Your task to perform on an android device: Search for Mexican restaurants on Maps Image 0: 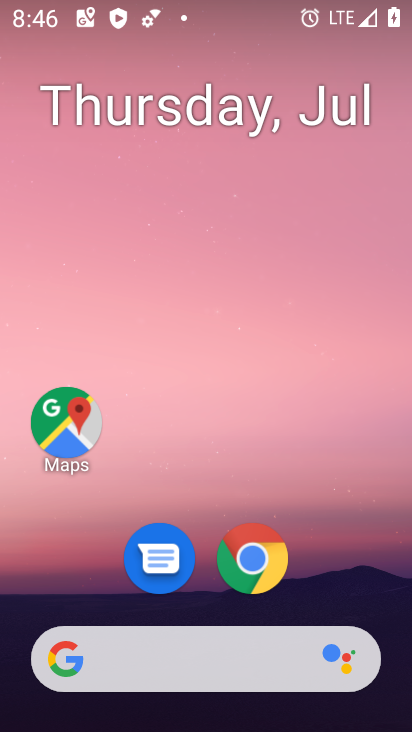
Step 0: drag from (212, 683) to (251, 261)
Your task to perform on an android device: Search for Mexican restaurants on Maps Image 1: 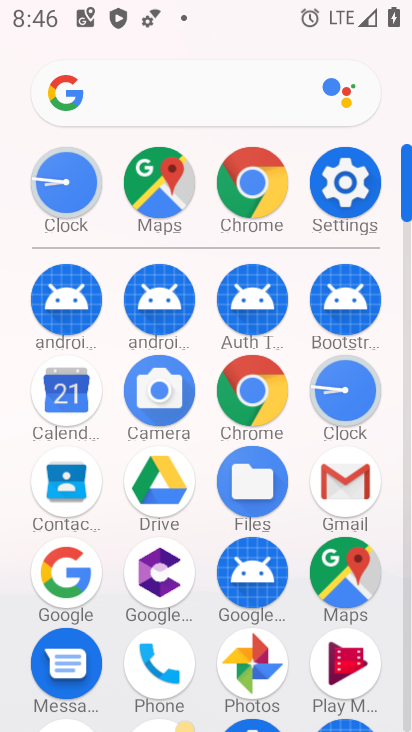
Step 1: click (367, 596)
Your task to perform on an android device: Search for Mexican restaurants on Maps Image 2: 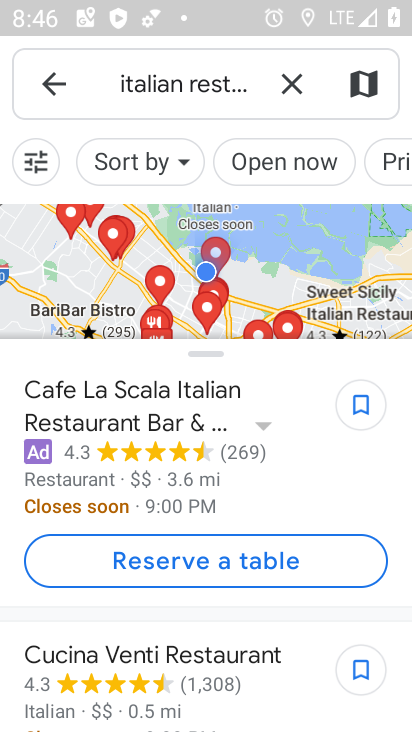
Step 2: click (301, 97)
Your task to perform on an android device: Search for Mexican restaurants on Maps Image 3: 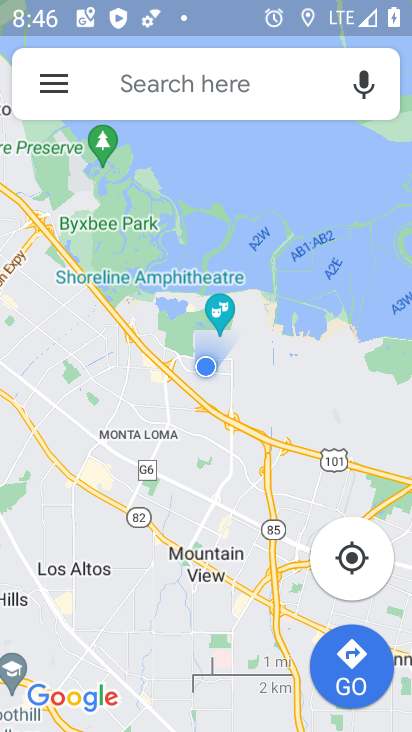
Step 3: click (265, 90)
Your task to perform on an android device: Search for Mexican restaurants on Maps Image 4: 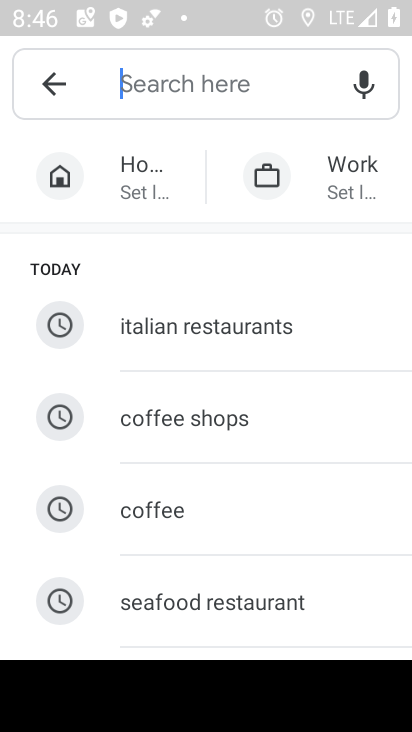
Step 4: type "mexican restaurants"
Your task to perform on an android device: Search for Mexican restaurants on Maps Image 5: 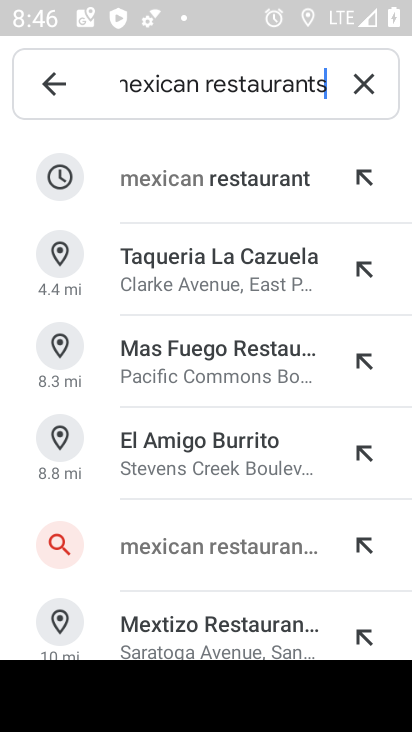
Step 5: click (212, 171)
Your task to perform on an android device: Search for Mexican restaurants on Maps Image 6: 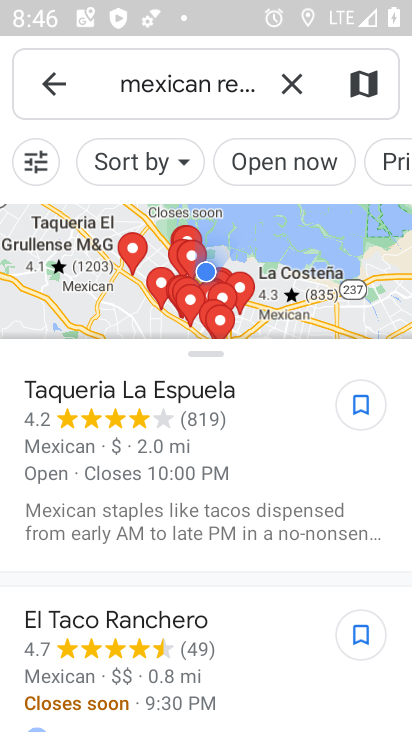
Step 6: task complete